Your task to perform on an android device: turn pop-ups on in chrome Image 0: 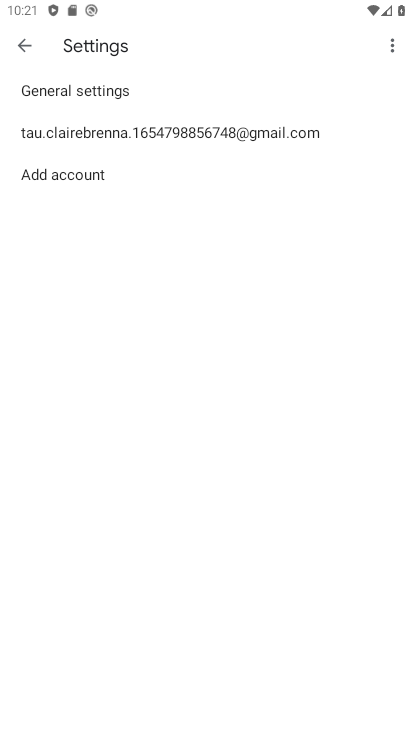
Step 0: press home button
Your task to perform on an android device: turn pop-ups on in chrome Image 1: 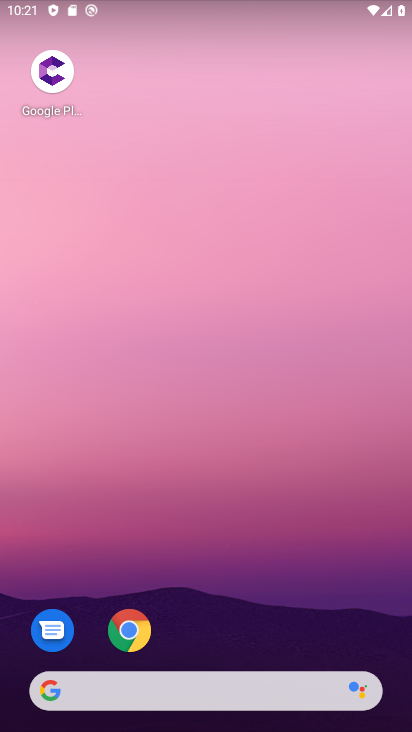
Step 1: click (134, 634)
Your task to perform on an android device: turn pop-ups on in chrome Image 2: 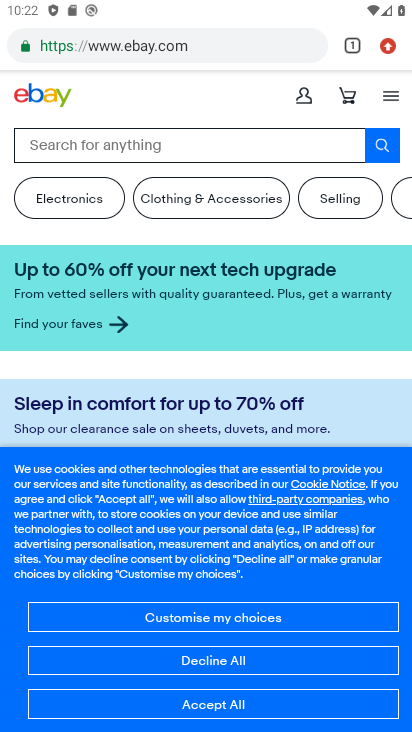
Step 2: drag from (394, 48) to (257, 595)
Your task to perform on an android device: turn pop-ups on in chrome Image 3: 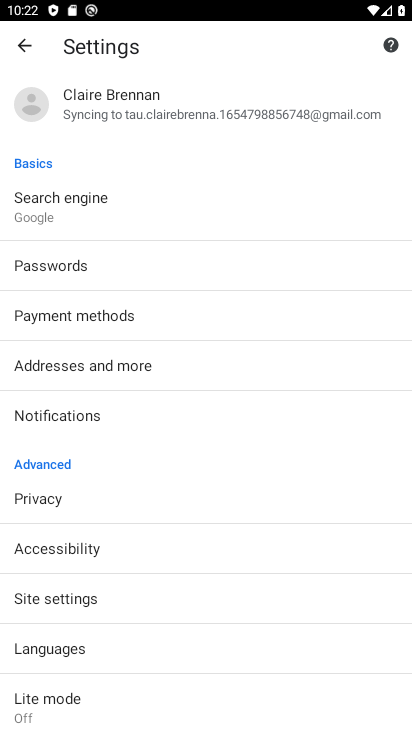
Step 3: click (83, 605)
Your task to perform on an android device: turn pop-ups on in chrome Image 4: 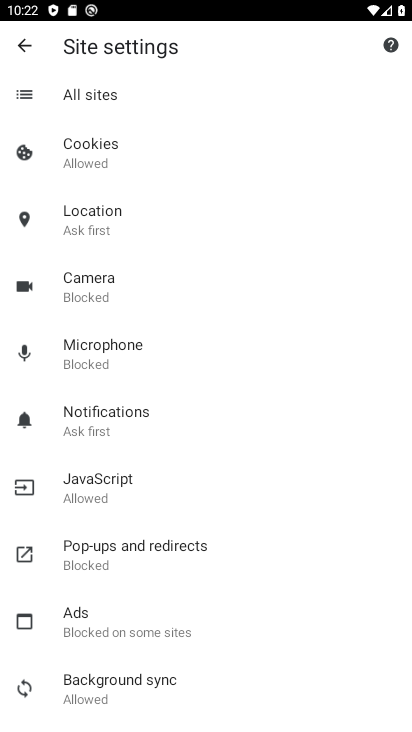
Step 4: click (139, 567)
Your task to perform on an android device: turn pop-ups on in chrome Image 5: 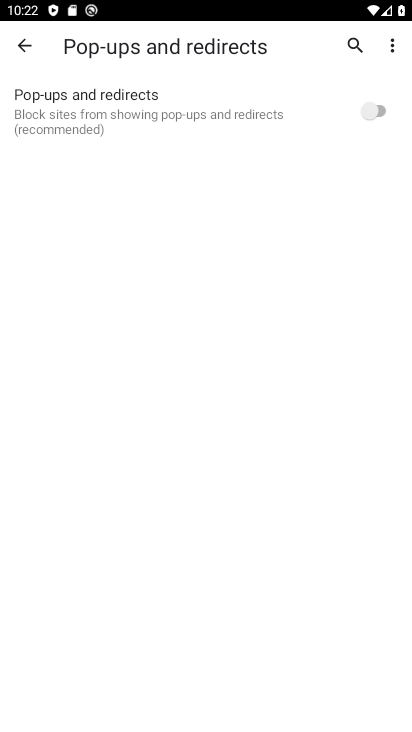
Step 5: click (385, 108)
Your task to perform on an android device: turn pop-ups on in chrome Image 6: 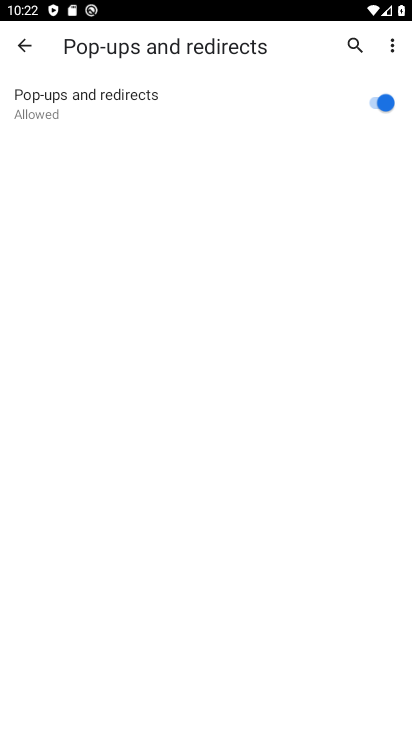
Step 6: task complete